Your task to perform on an android device: open app "Facebook Messenger" Image 0: 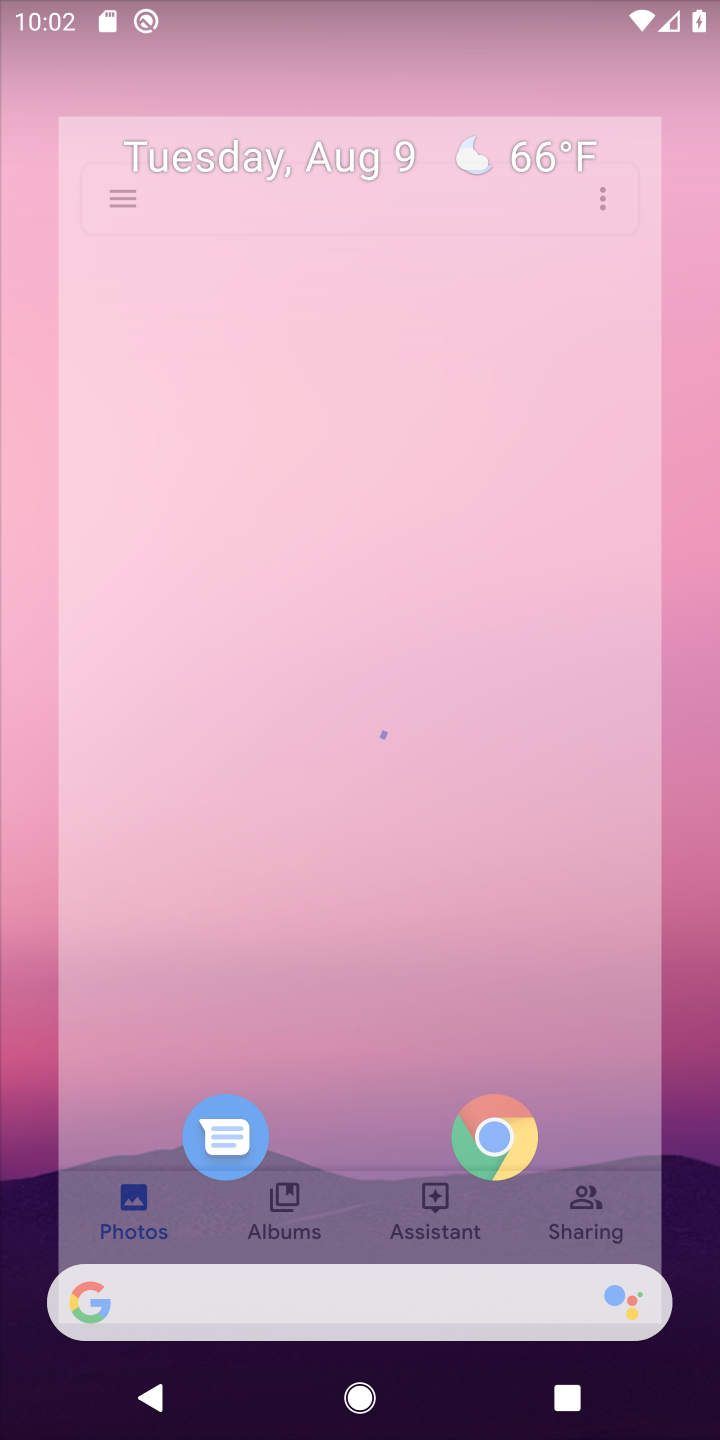
Step 0: press home button
Your task to perform on an android device: open app "Facebook Messenger" Image 1: 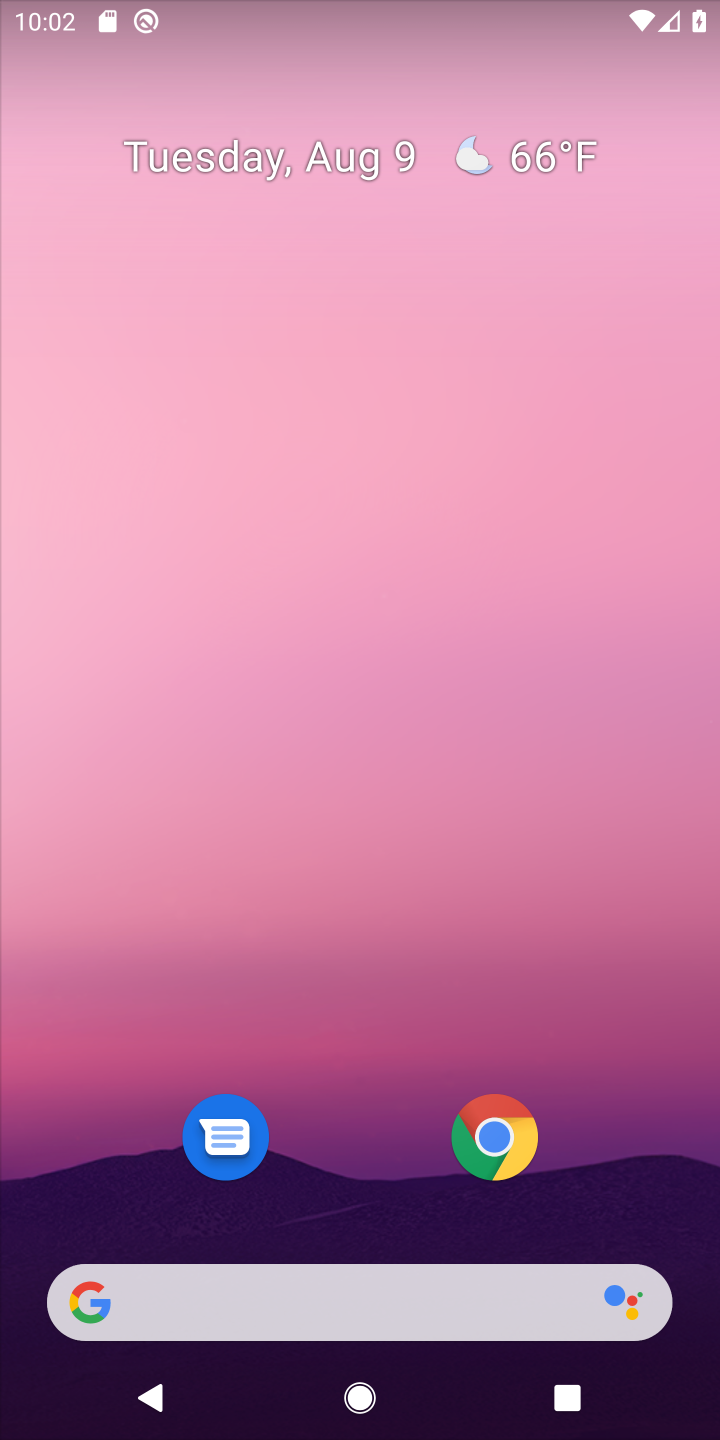
Step 1: drag from (323, 1037) to (336, 194)
Your task to perform on an android device: open app "Facebook Messenger" Image 2: 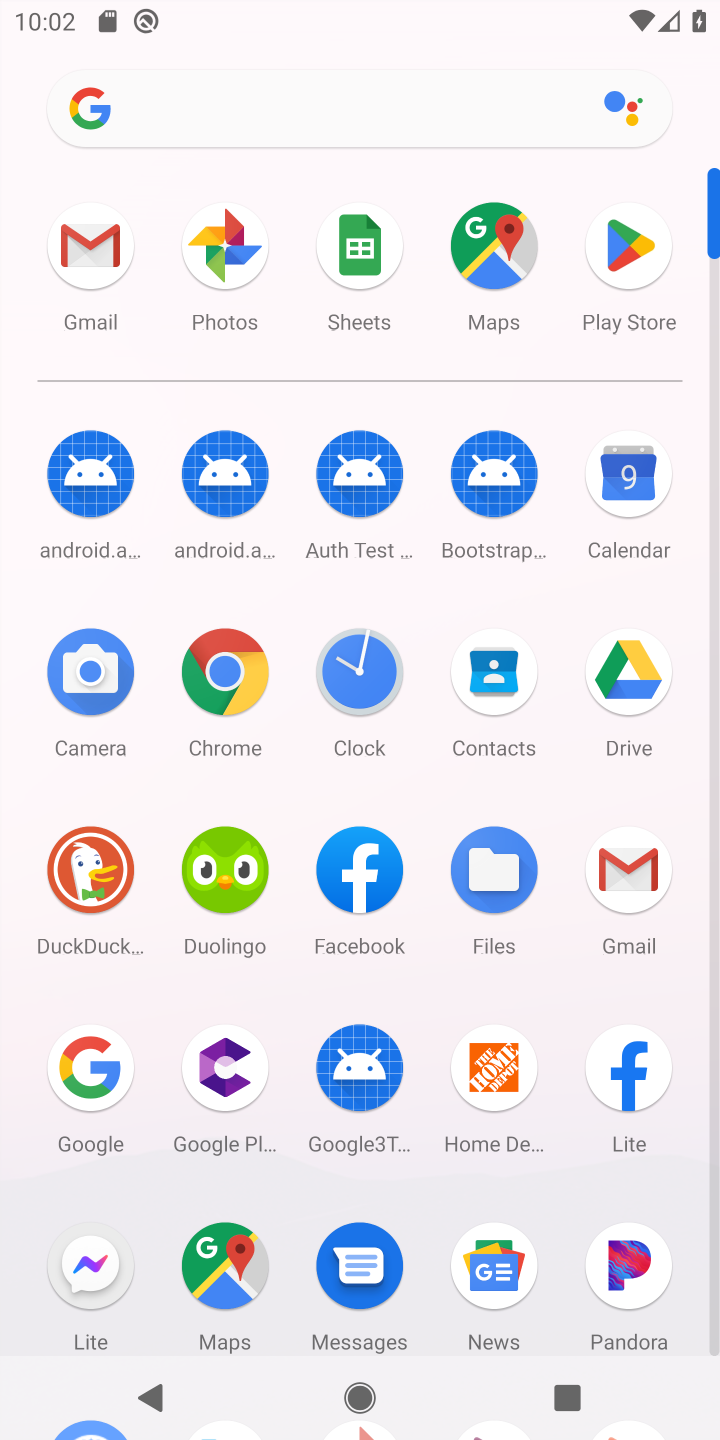
Step 2: click (615, 250)
Your task to perform on an android device: open app "Facebook Messenger" Image 3: 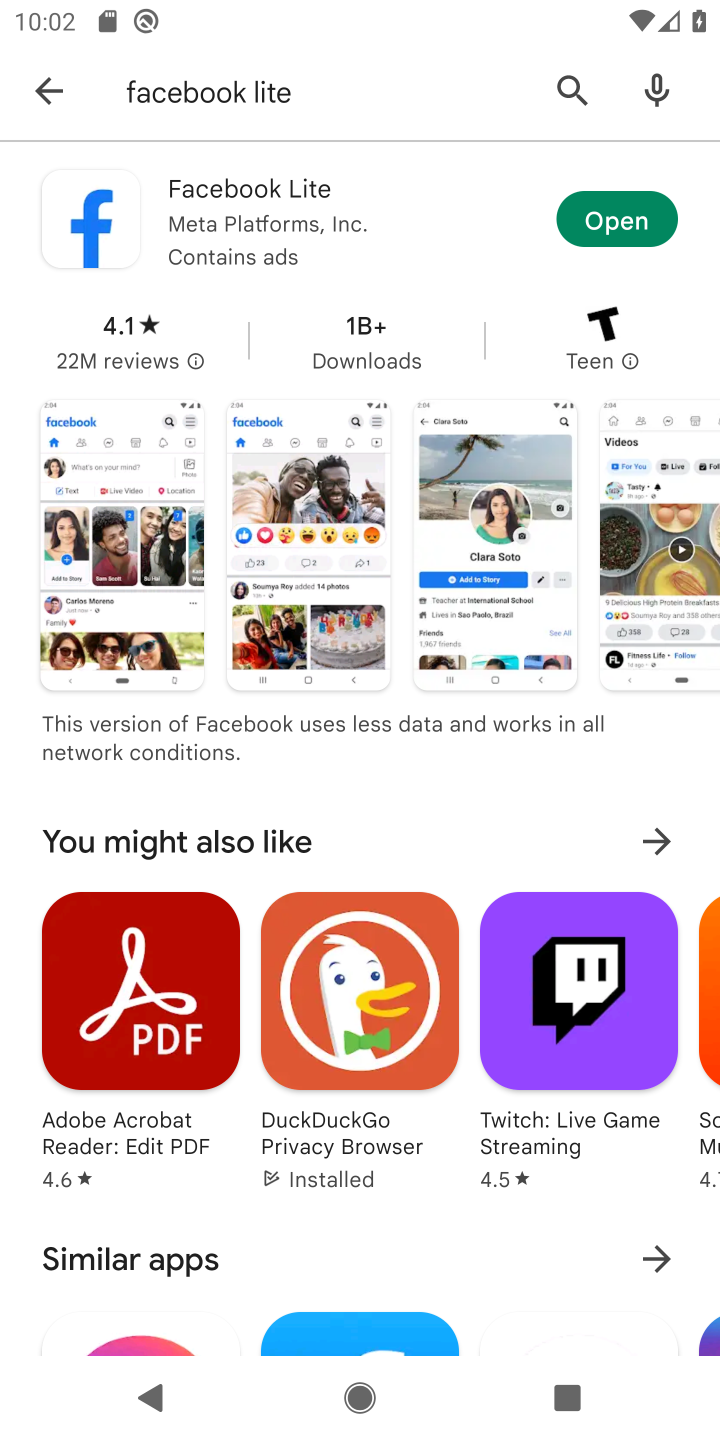
Step 3: click (538, 68)
Your task to perform on an android device: open app "Facebook Messenger" Image 4: 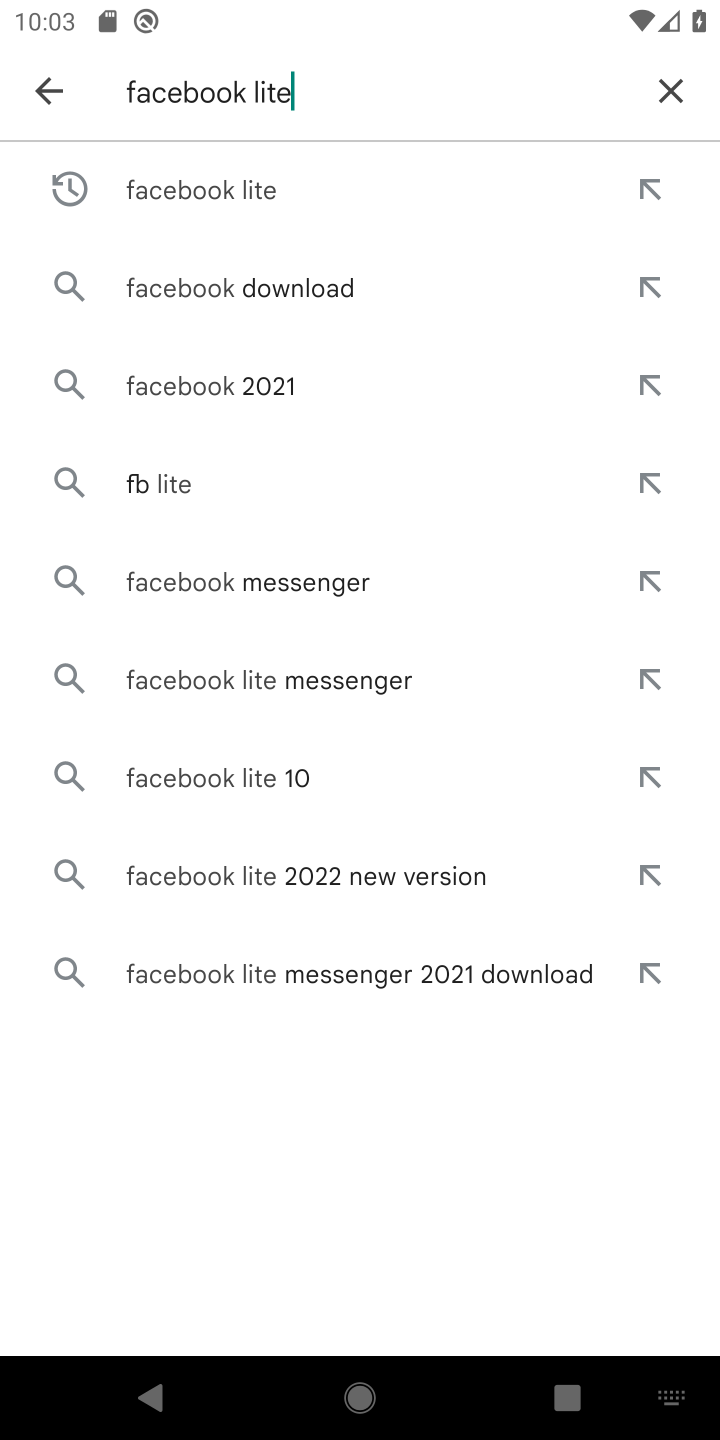
Step 4: click (674, 97)
Your task to perform on an android device: open app "Facebook Messenger" Image 5: 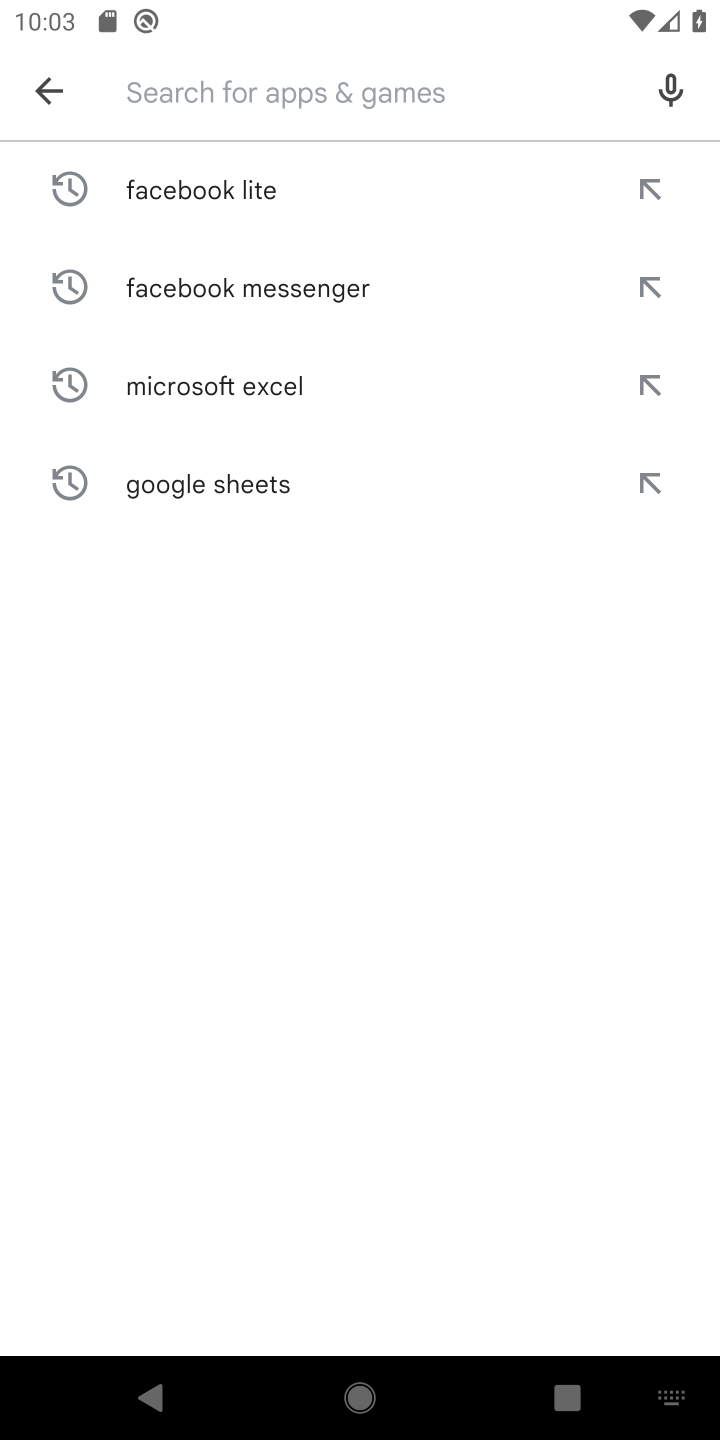
Step 5: type "Facebook Messenger"
Your task to perform on an android device: open app "Facebook Messenger" Image 6: 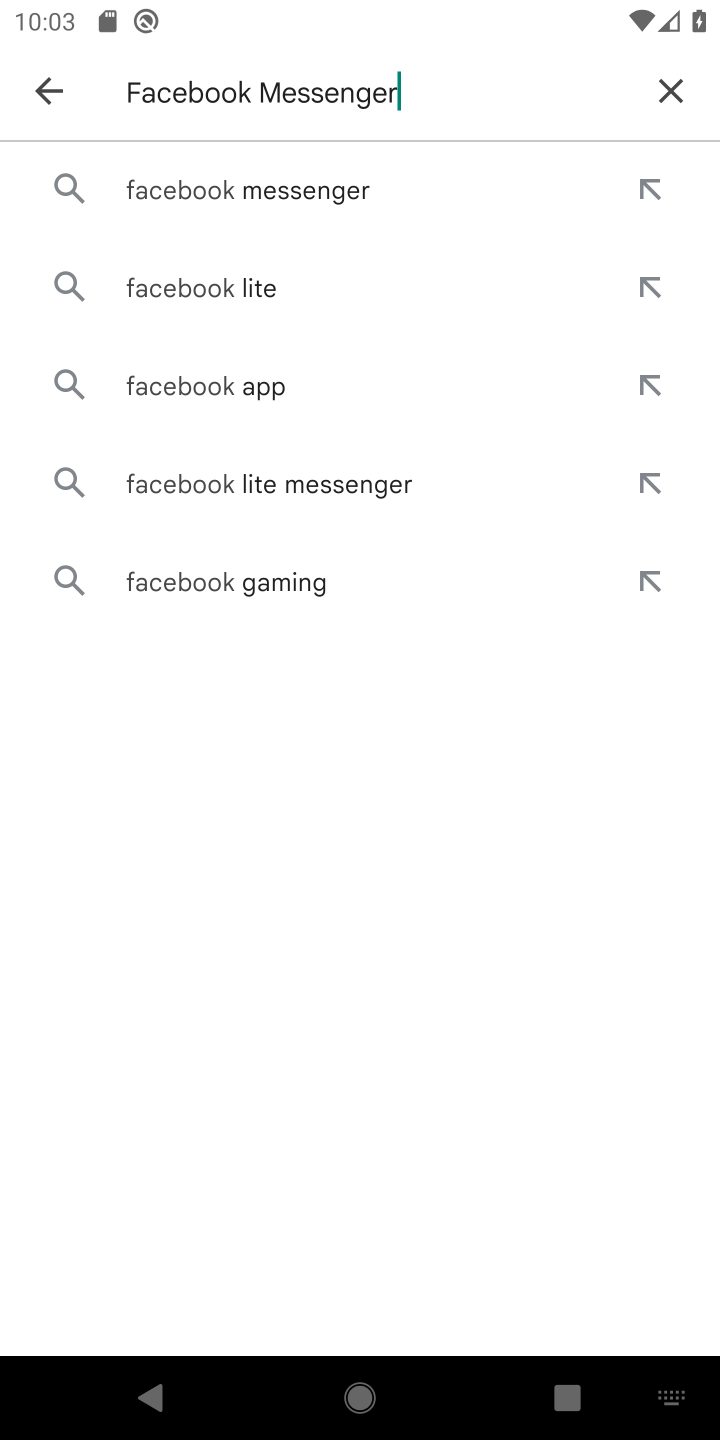
Step 6: type ""
Your task to perform on an android device: open app "Facebook Messenger" Image 7: 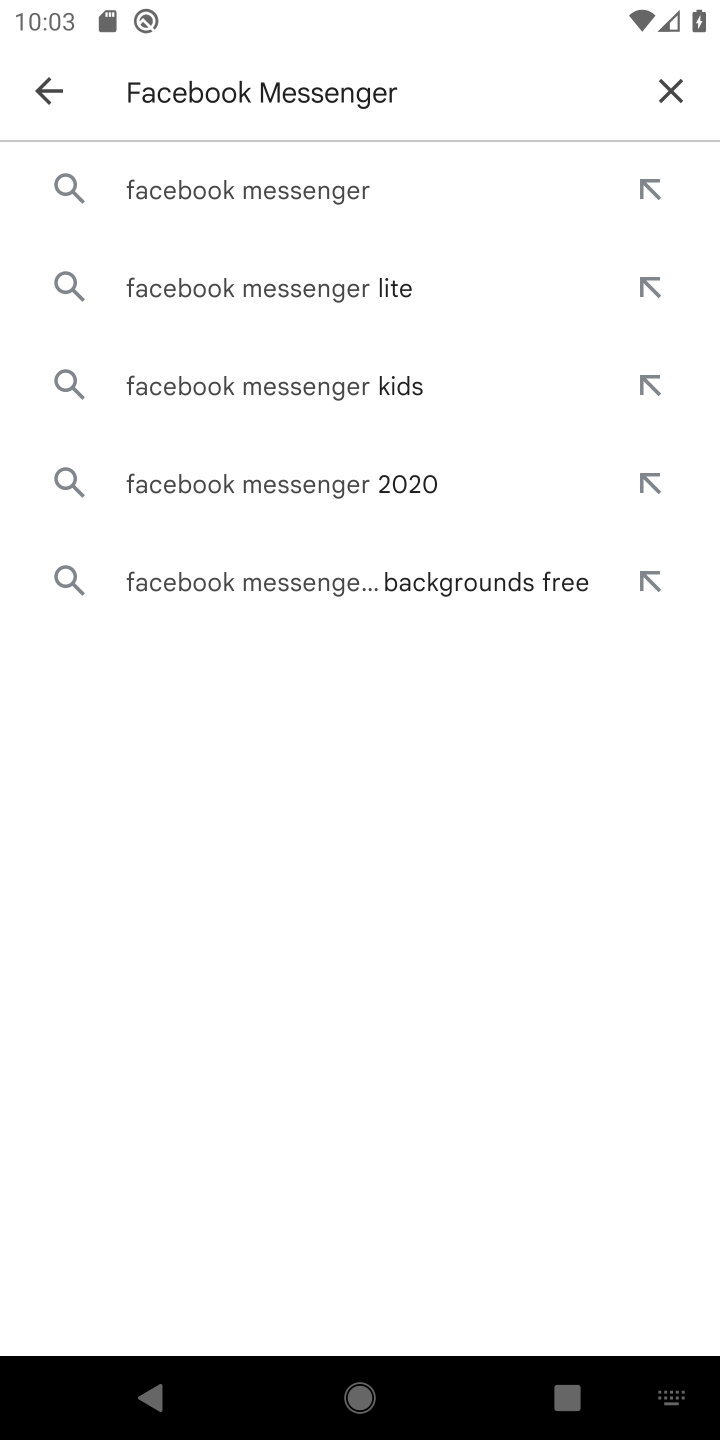
Step 7: click (228, 287)
Your task to perform on an android device: open app "Facebook Messenger" Image 8: 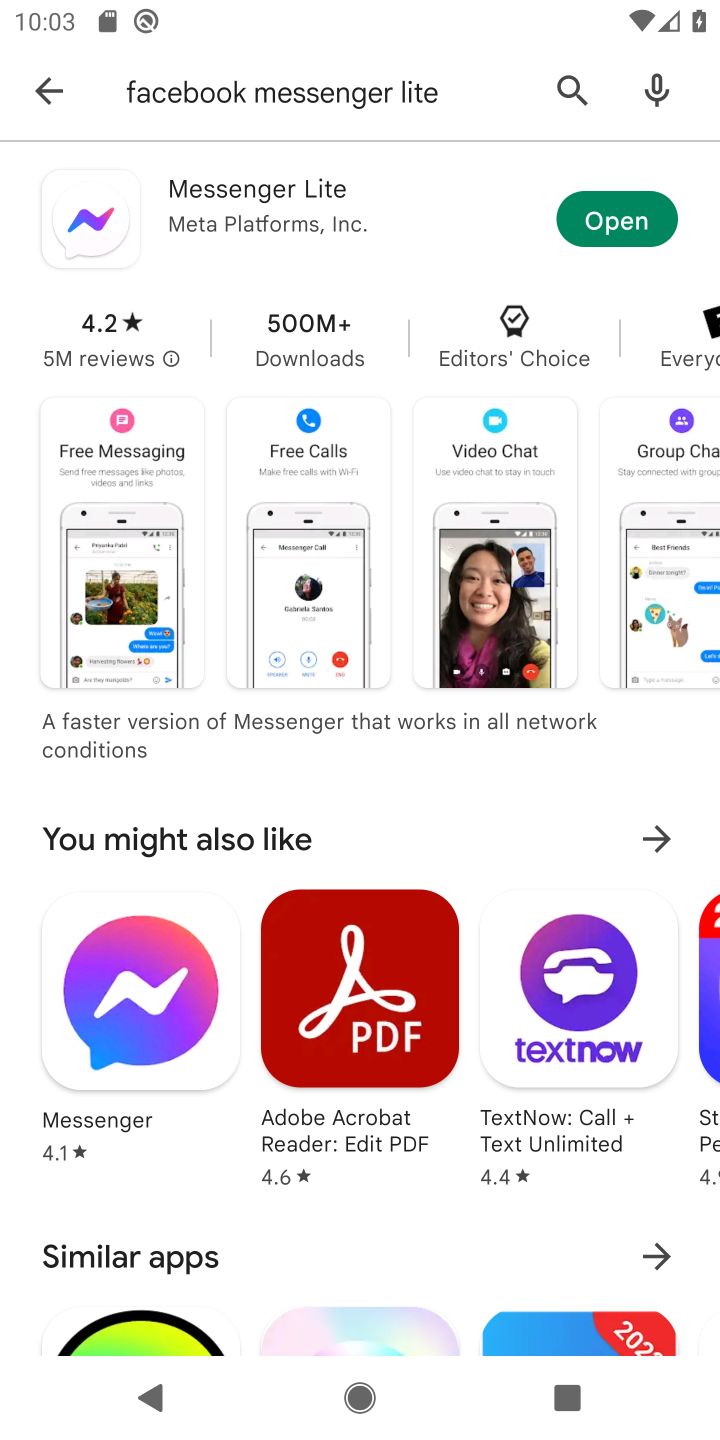
Step 8: click (566, 79)
Your task to perform on an android device: open app "Facebook Messenger" Image 9: 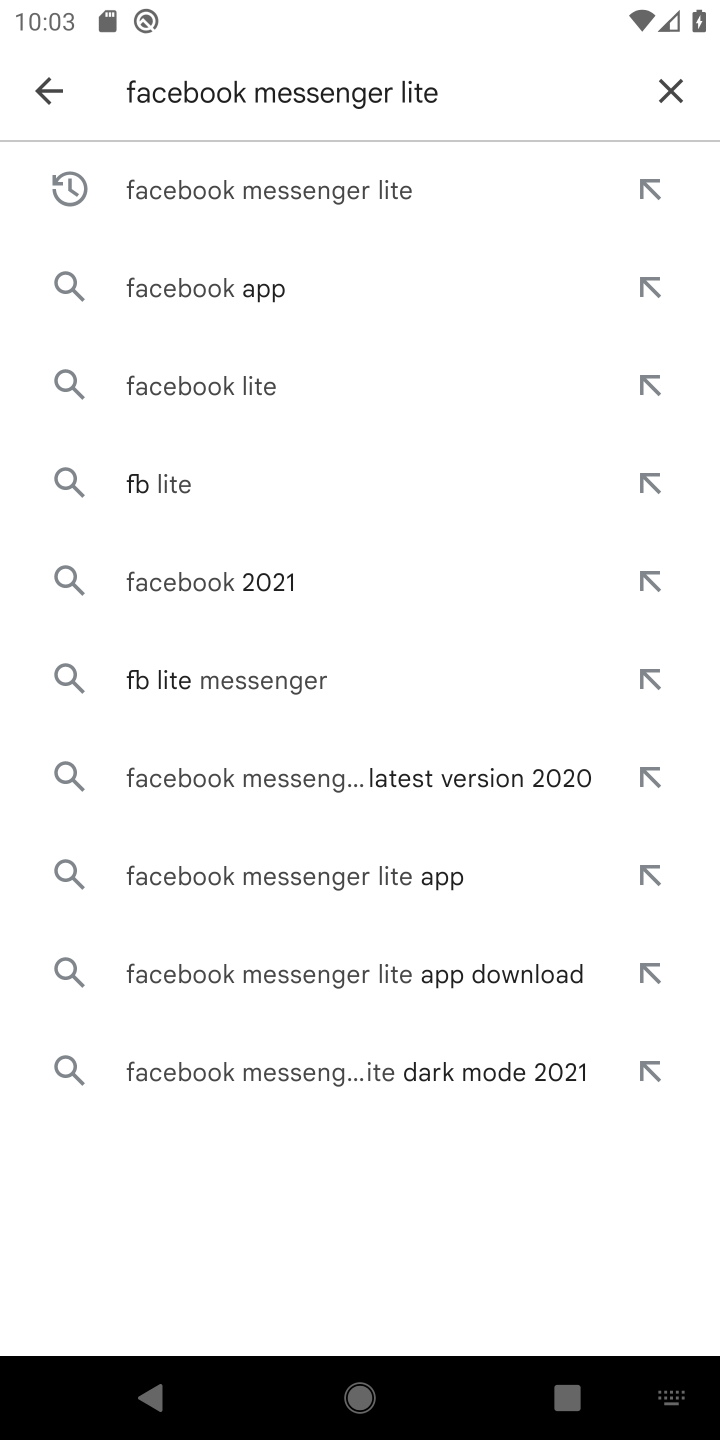
Step 9: click (663, 98)
Your task to perform on an android device: open app "Facebook Messenger" Image 10: 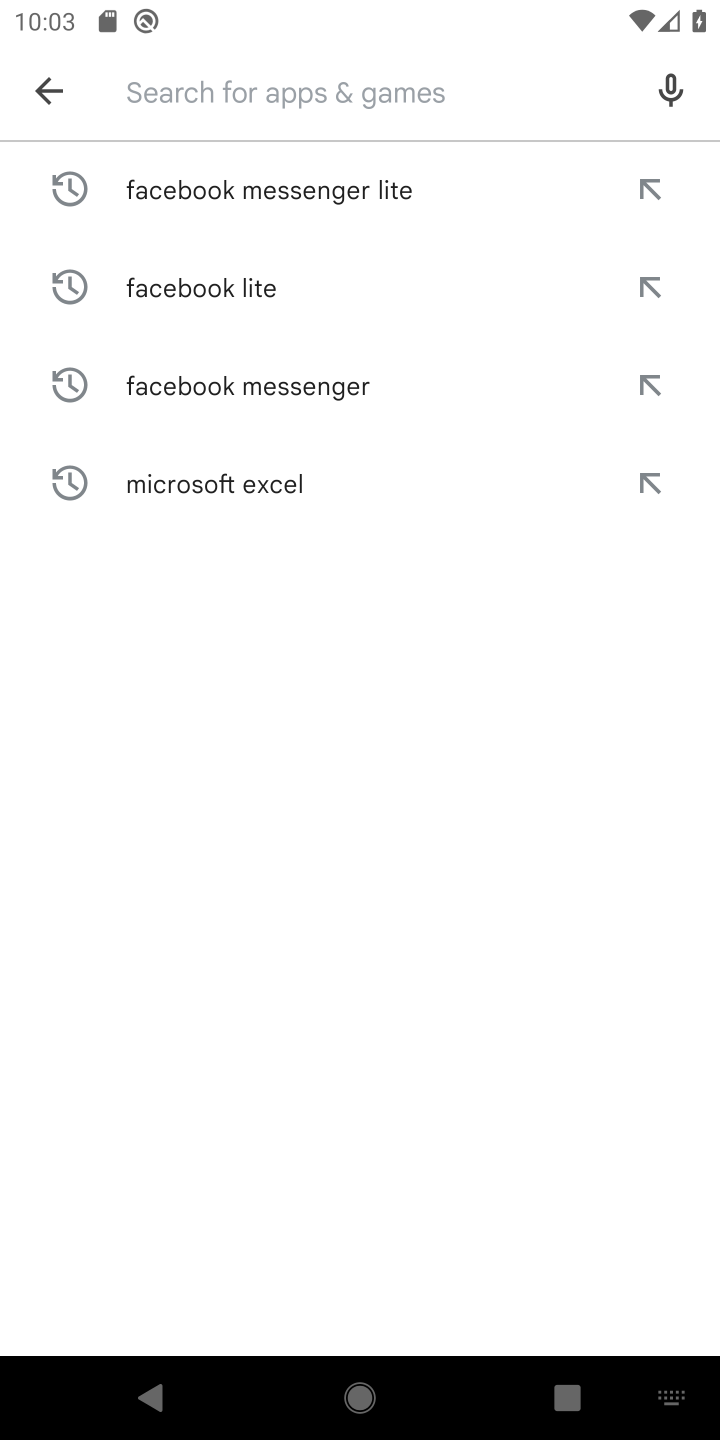
Step 10: type "Facebook Messenger"
Your task to perform on an android device: open app "Facebook Messenger" Image 11: 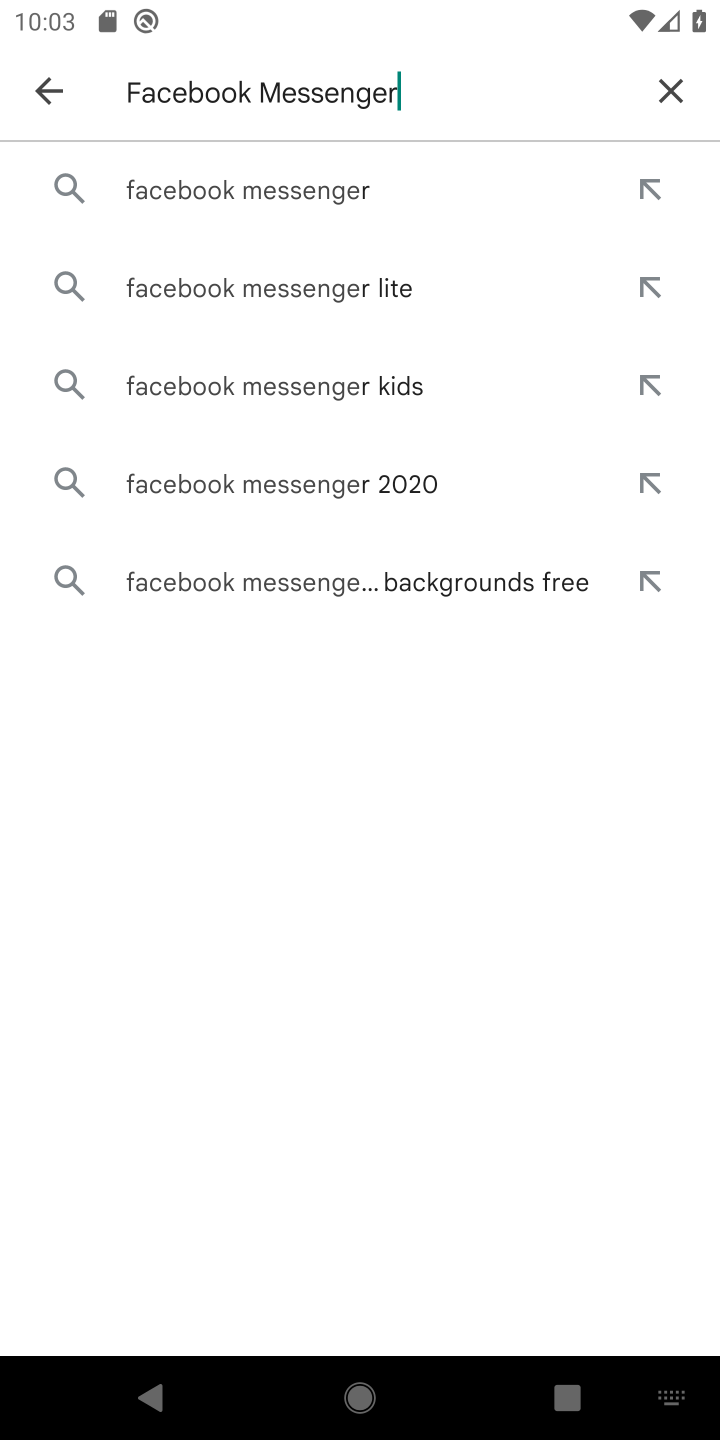
Step 11: type ""
Your task to perform on an android device: open app "Facebook Messenger" Image 12: 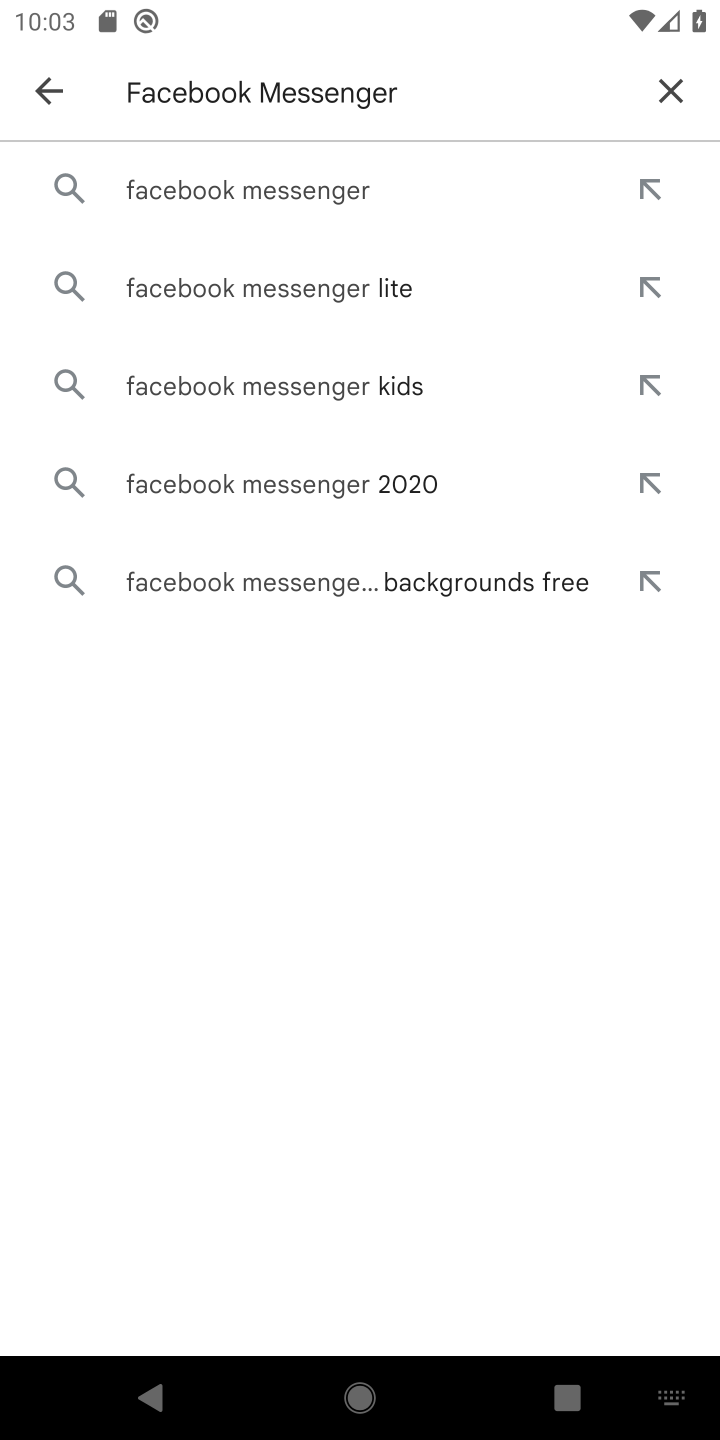
Step 12: click (421, 200)
Your task to perform on an android device: open app "Facebook Messenger" Image 13: 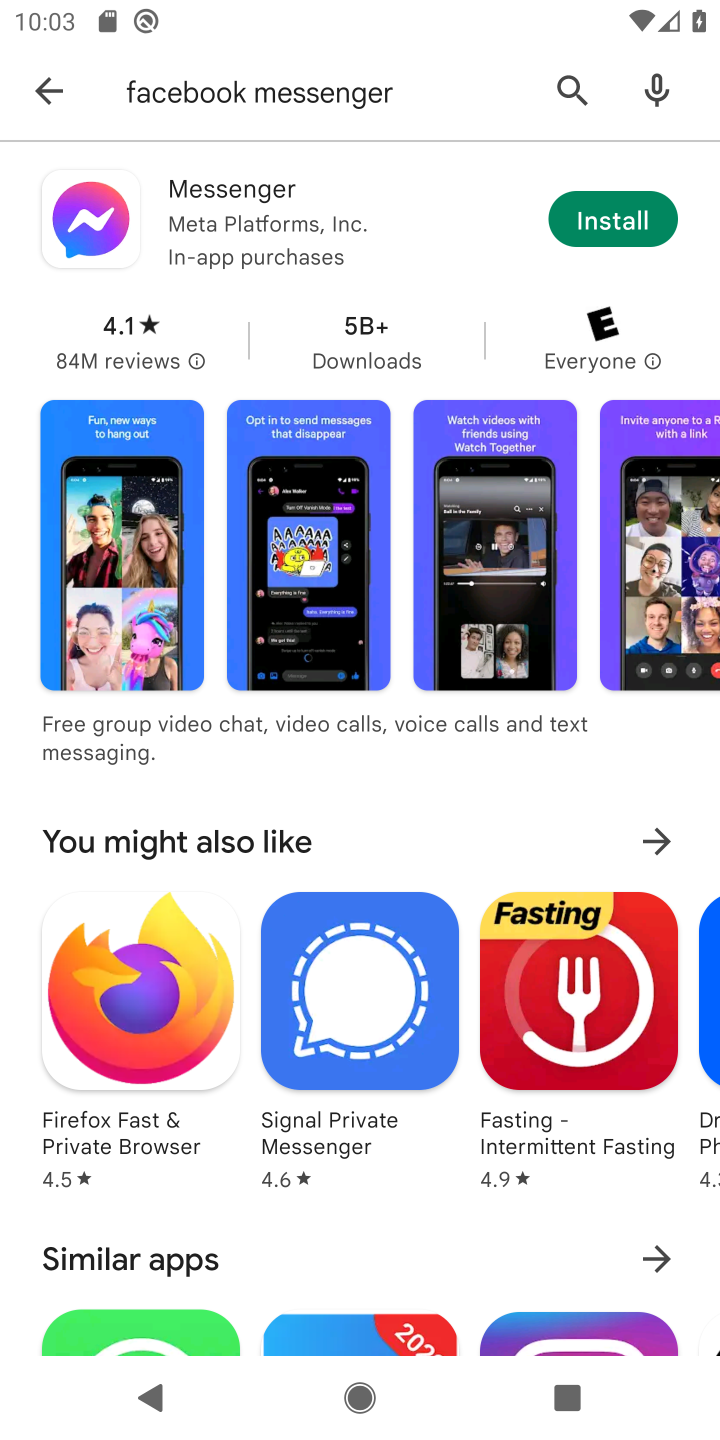
Step 13: task complete